Your task to perform on an android device: Open ESPN.com Image 0: 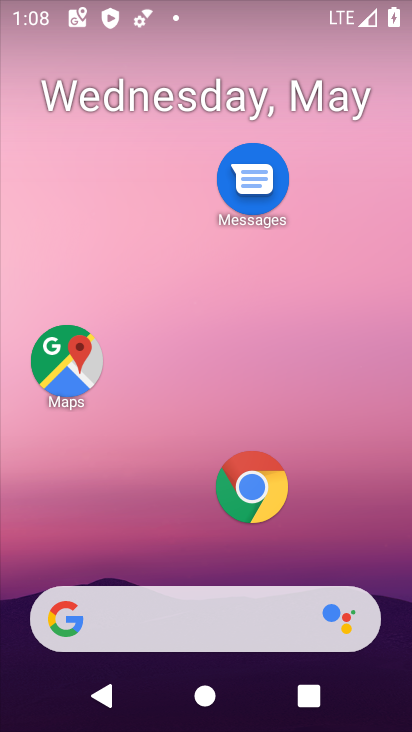
Step 0: click (257, 499)
Your task to perform on an android device: Open ESPN.com Image 1: 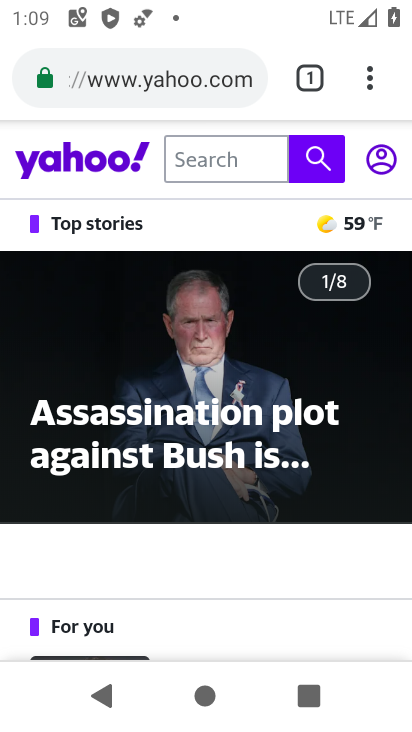
Step 1: click (184, 70)
Your task to perform on an android device: Open ESPN.com Image 2: 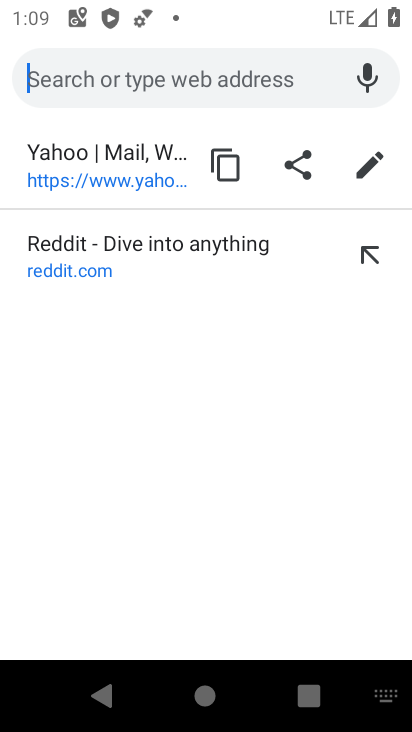
Step 2: type "ESPN.com"
Your task to perform on an android device: Open ESPN.com Image 3: 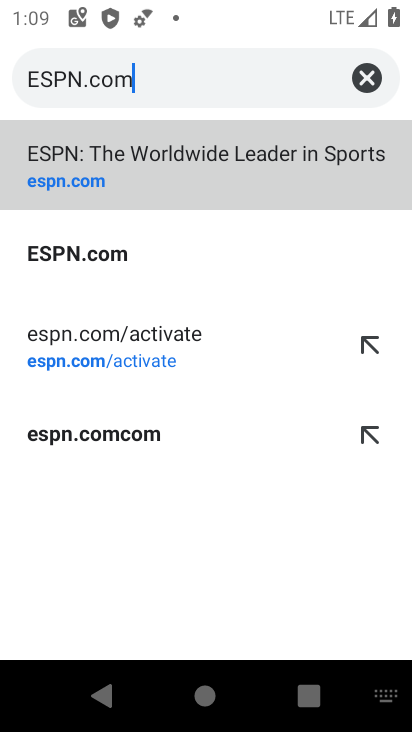
Step 3: click (151, 253)
Your task to perform on an android device: Open ESPN.com Image 4: 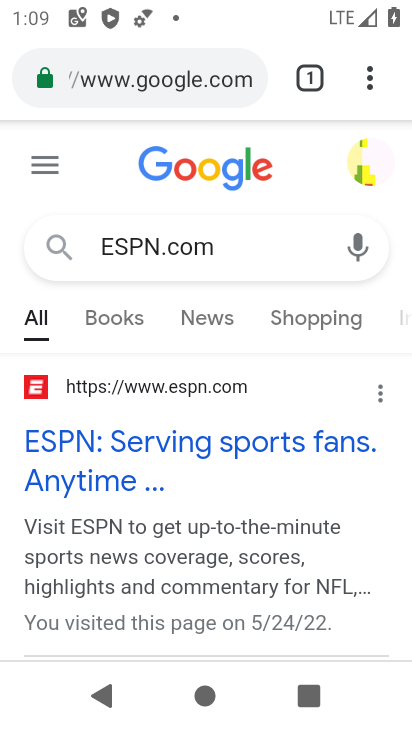
Step 4: task complete